Your task to perform on an android device: Open Android settings Image 0: 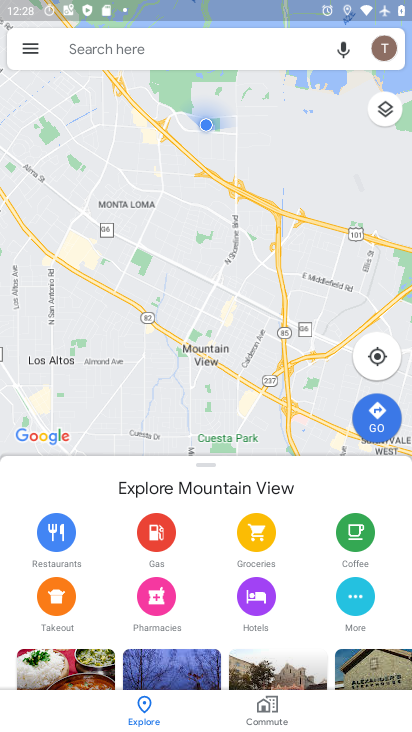
Step 0: press home button
Your task to perform on an android device: Open Android settings Image 1: 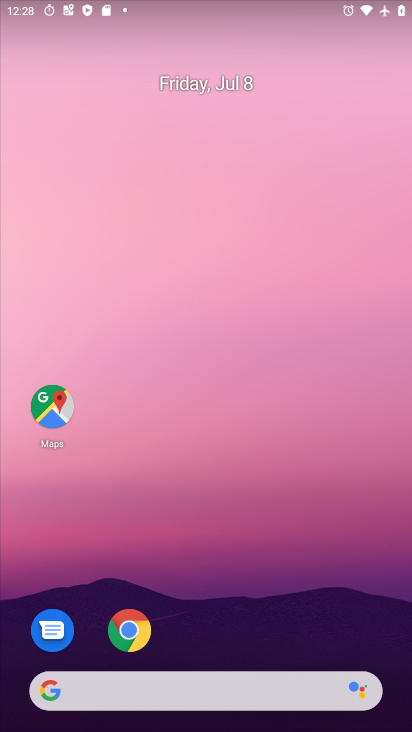
Step 1: drag from (248, 630) to (251, 115)
Your task to perform on an android device: Open Android settings Image 2: 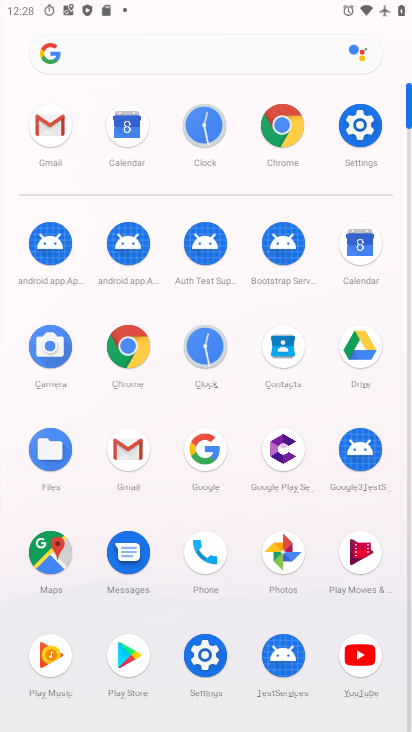
Step 2: click (347, 146)
Your task to perform on an android device: Open Android settings Image 3: 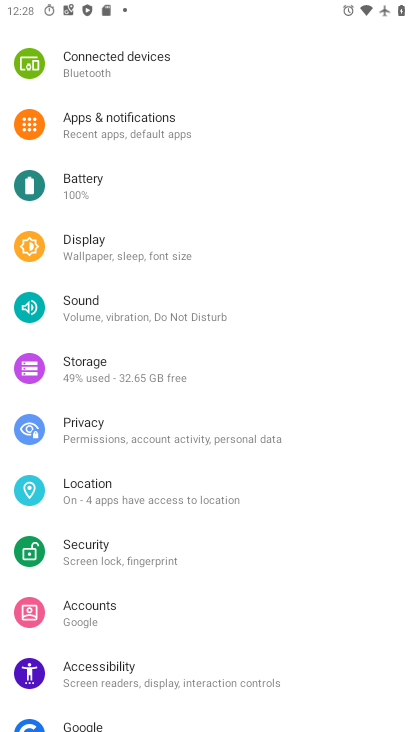
Step 3: task complete